Your task to perform on an android device: What is the recent news? Image 0: 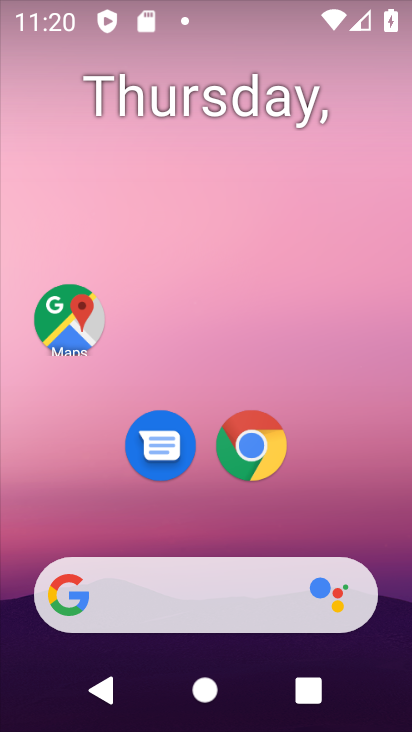
Step 0: drag from (211, 449) to (215, 20)
Your task to perform on an android device: What is the recent news? Image 1: 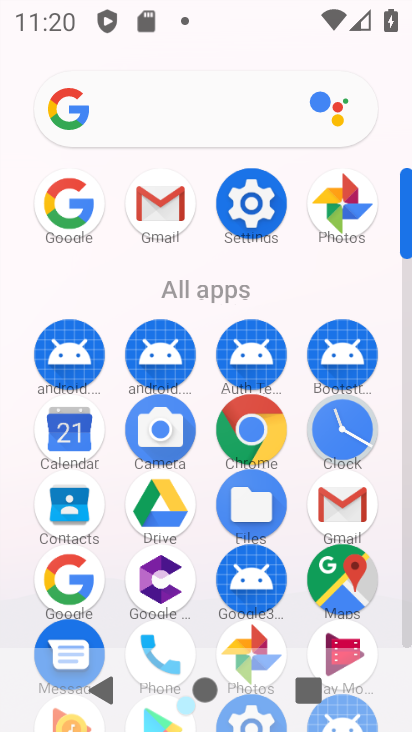
Step 1: click (74, 204)
Your task to perform on an android device: What is the recent news? Image 2: 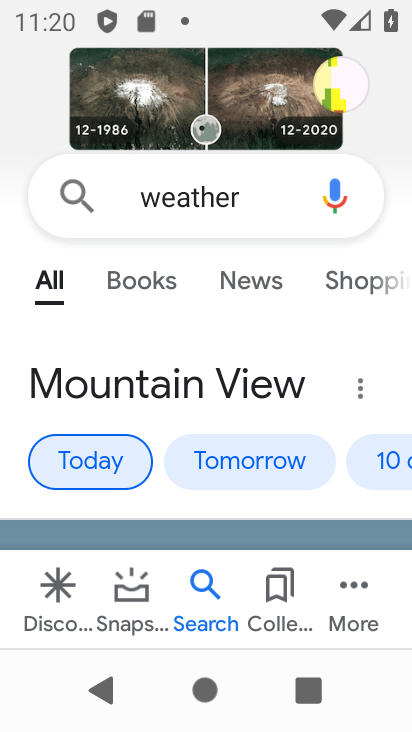
Step 2: click (252, 279)
Your task to perform on an android device: What is the recent news? Image 3: 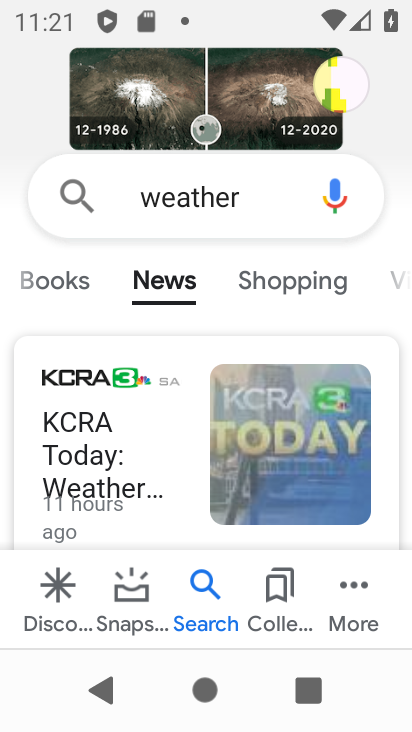
Step 3: task complete